Your task to perform on an android device: turn off picture-in-picture Image 0: 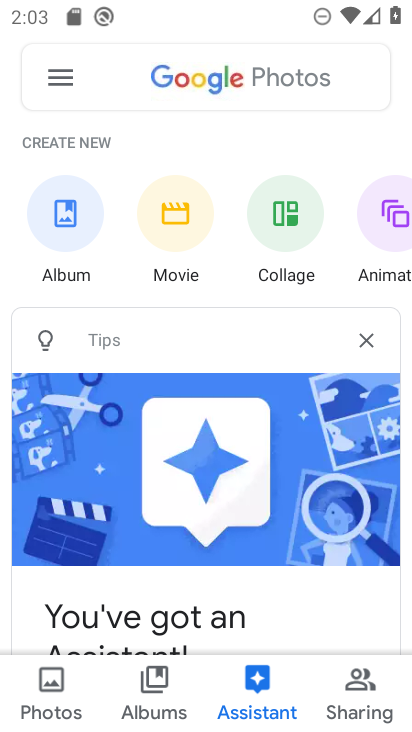
Step 0: drag from (371, 544) to (332, 97)
Your task to perform on an android device: turn off picture-in-picture Image 1: 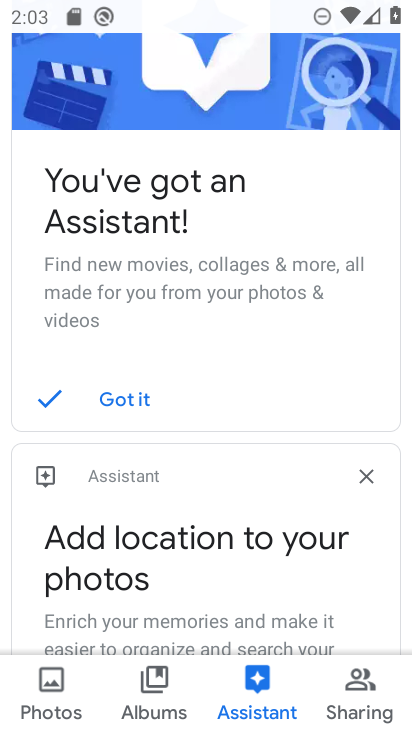
Step 1: press home button
Your task to perform on an android device: turn off picture-in-picture Image 2: 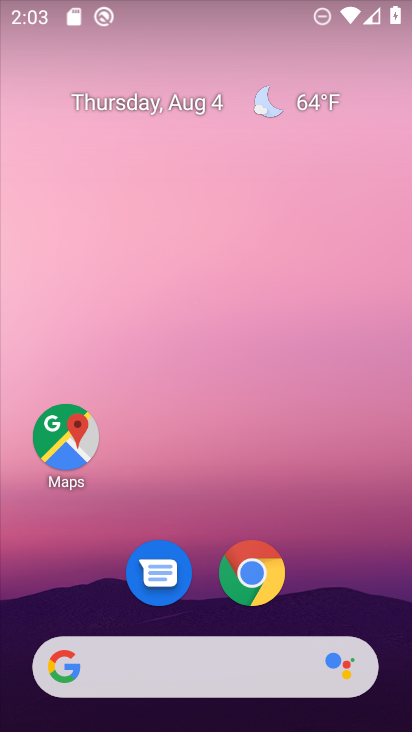
Step 2: drag from (394, 588) to (329, 436)
Your task to perform on an android device: turn off picture-in-picture Image 3: 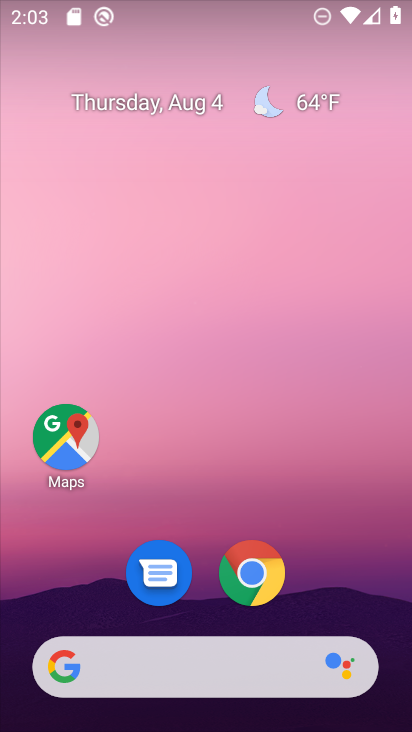
Step 3: click (255, 561)
Your task to perform on an android device: turn off picture-in-picture Image 4: 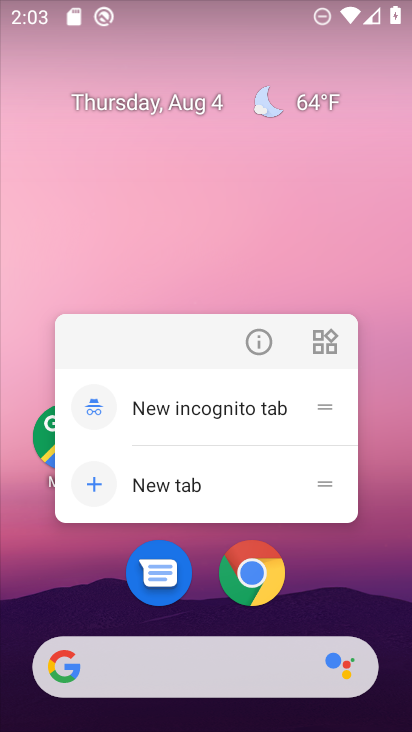
Step 4: click (262, 342)
Your task to perform on an android device: turn off picture-in-picture Image 5: 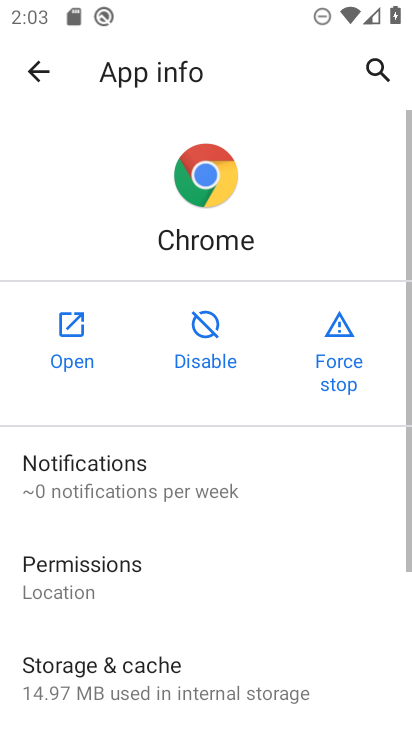
Step 5: drag from (233, 624) to (230, 114)
Your task to perform on an android device: turn off picture-in-picture Image 6: 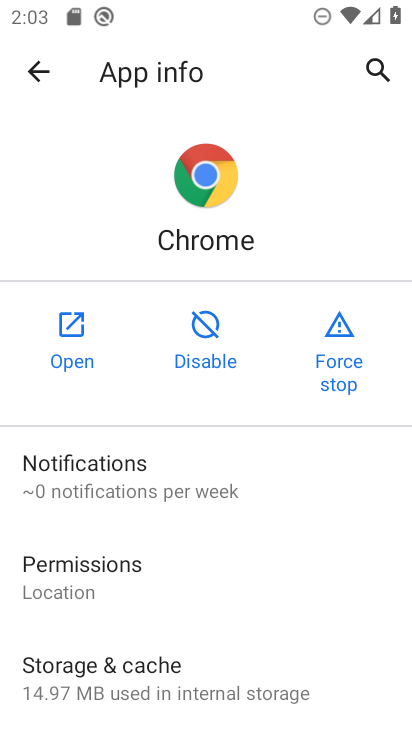
Step 6: drag from (170, 663) to (302, 174)
Your task to perform on an android device: turn off picture-in-picture Image 7: 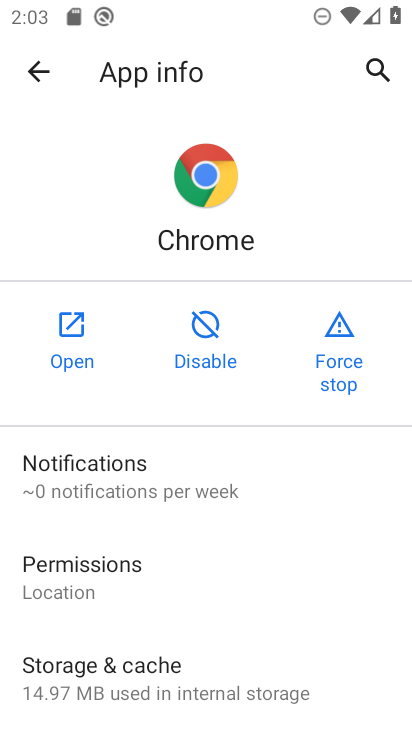
Step 7: drag from (308, 646) to (346, 240)
Your task to perform on an android device: turn off picture-in-picture Image 8: 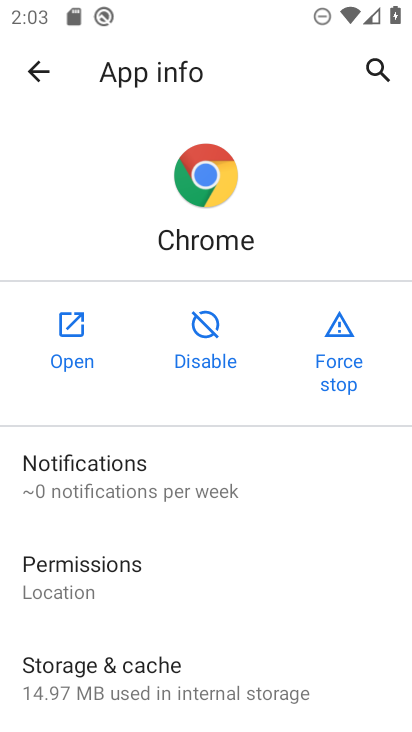
Step 8: click (296, 528)
Your task to perform on an android device: turn off picture-in-picture Image 9: 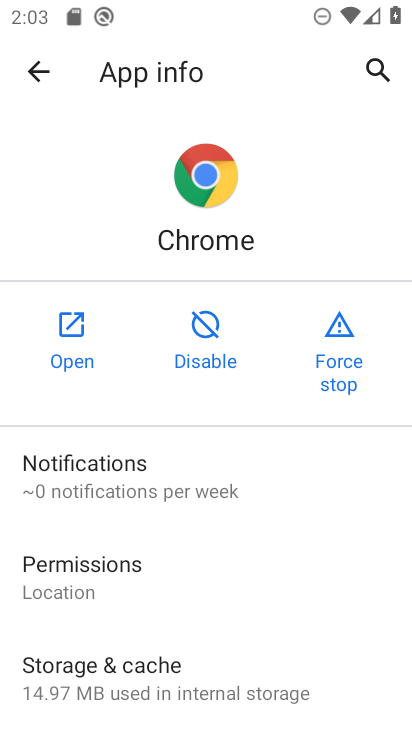
Step 9: drag from (344, 587) to (360, 190)
Your task to perform on an android device: turn off picture-in-picture Image 10: 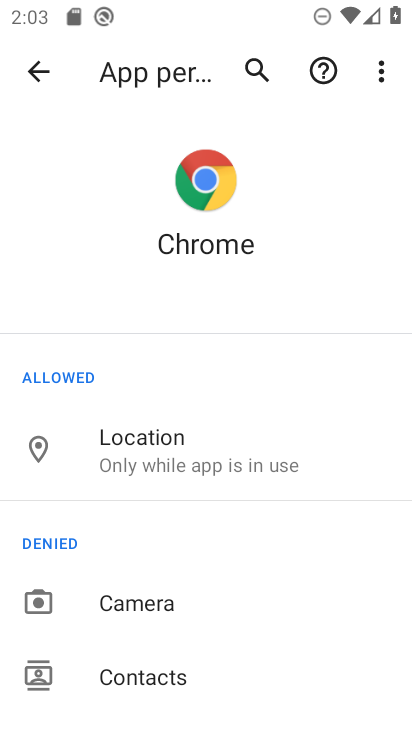
Step 10: click (46, 60)
Your task to perform on an android device: turn off picture-in-picture Image 11: 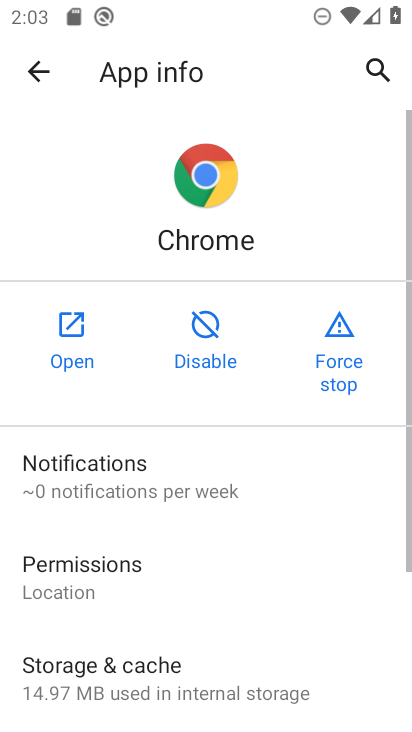
Step 11: drag from (357, 638) to (346, 117)
Your task to perform on an android device: turn off picture-in-picture Image 12: 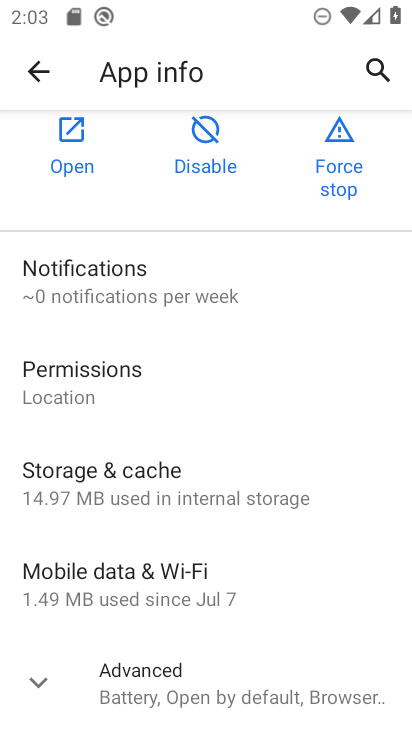
Step 12: click (187, 693)
Your task to perform on an android device: turn off picture-in-picture Image 13: 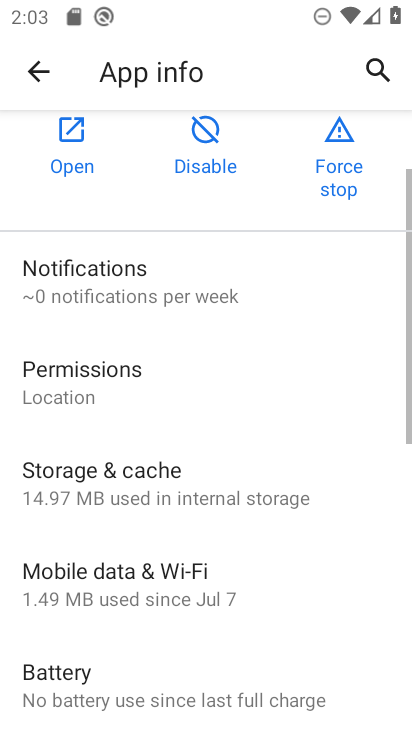
Step 13: drag from (342, 638) to (348, 192)
Your task to perform on an android device: turn off picture-in-picture Image 14: 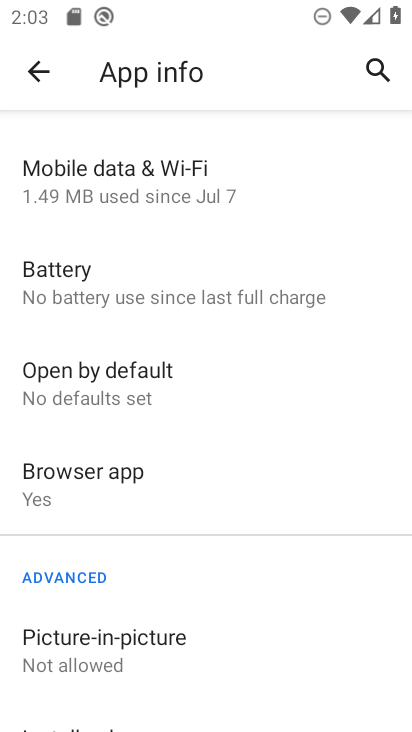
Step 14: click (162, 656)
Your task to perform on an android device: turn off picture-in-picture Image 15: 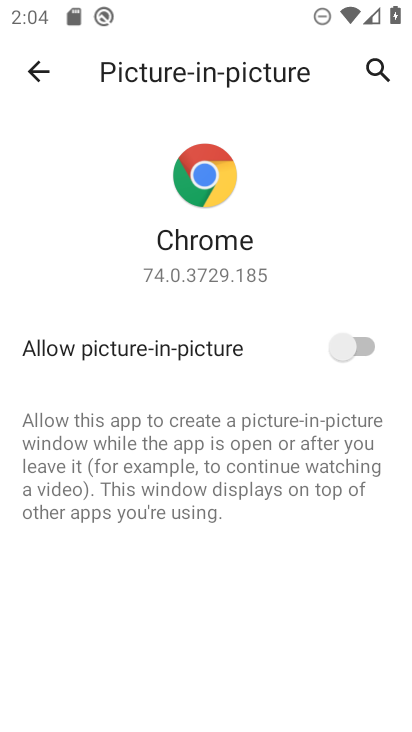
Step 15: task complete